Your task to perform on an android device: set the stopwatch Image 0: 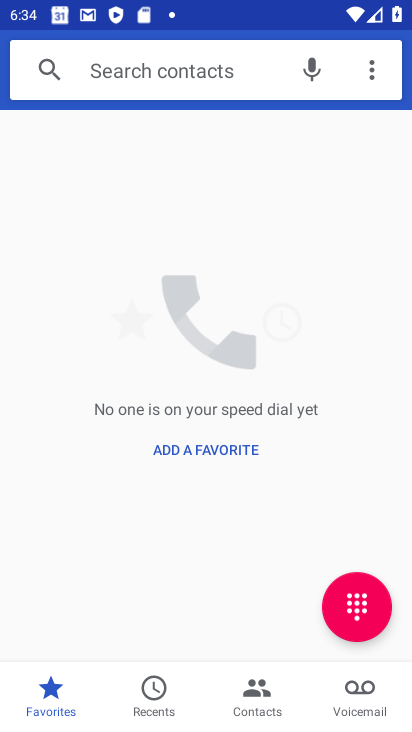
Step 0: press home button
Your task to perform on an android device: set the stopwatch Image 1: 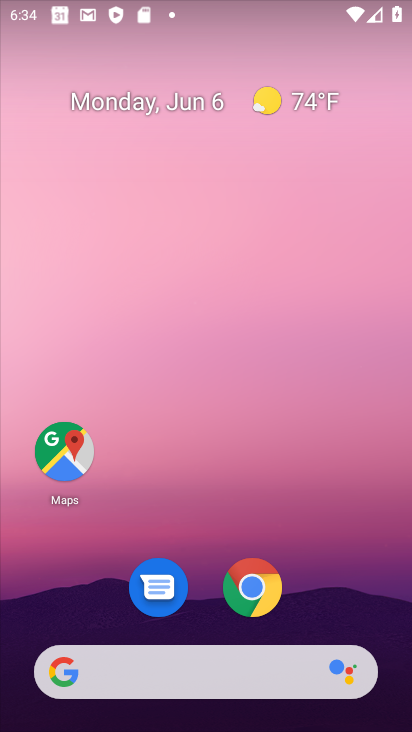
Step 1: drag from (357, 613) to (290, 31)
Your task to perform on an android device: set the stopwatch Image 2: 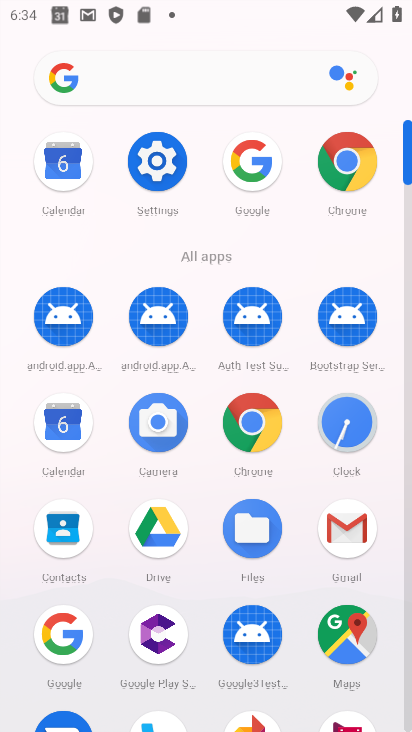
Step 2: click (341, 427)
Your task to perform on an android device: set the stopwatch Image 3: 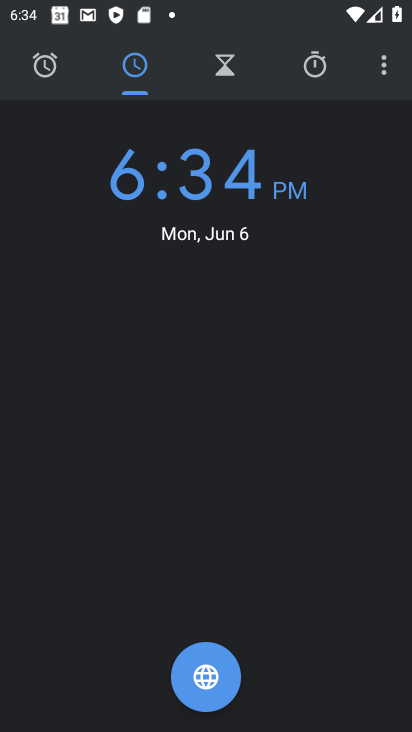
Step 3: click (308, 55)
Your task to perform on an android device: set the stopwatch Image 4: 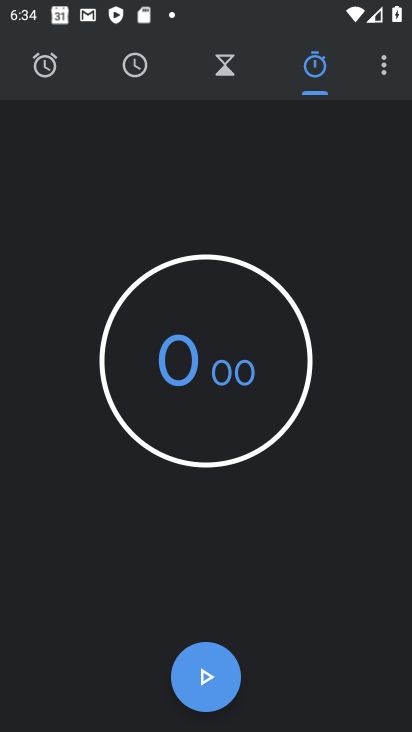
Step 4: click (193, 676)
Your task to perform on an android device: set the stopwatch Image 5: 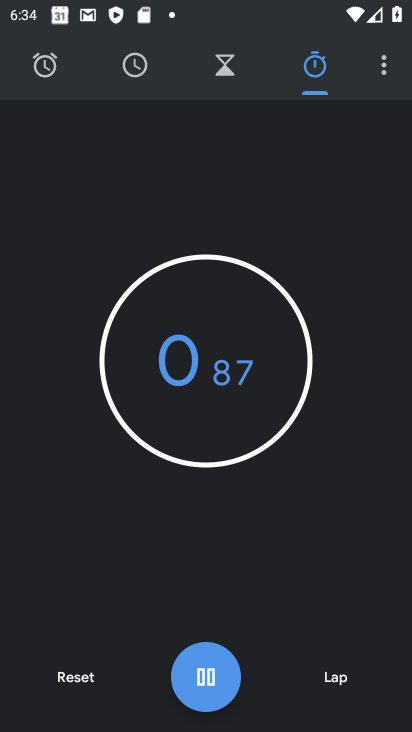
Step 5: click (193, 676)
Your task to perform on an android device: set the stopwatch Image 6: 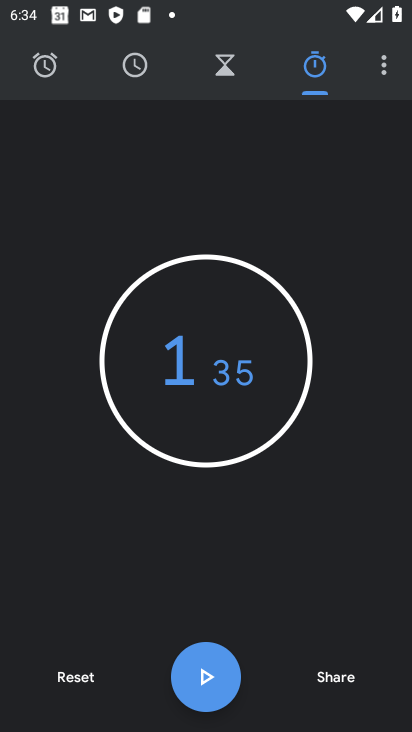
Step 6: task complete